Your task to perform on an android device: move an email to a new category in the gmail app Image 0: 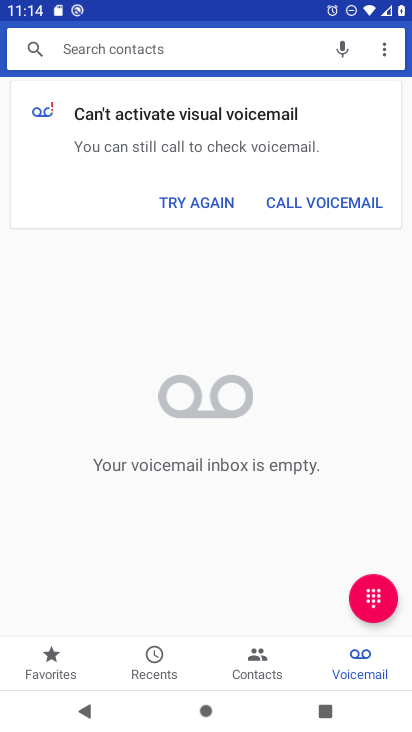
Step 0: press home button
Your task to perform on an android device: move an email to a new category in the gmail app Image 1: 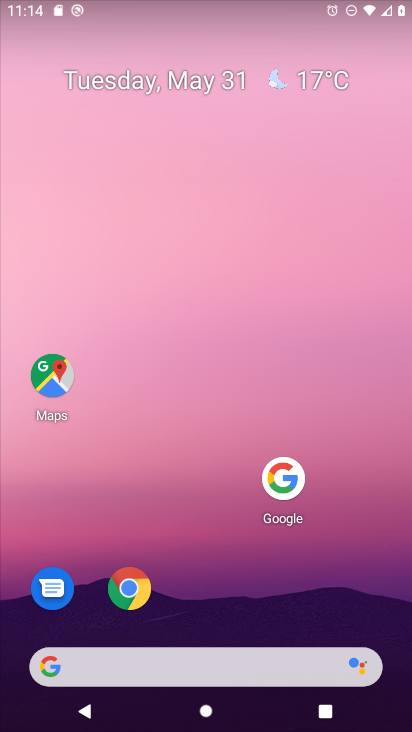
Step 1: drag from (194, 653) to (319, 149)
Your task to perform on an android device: move an email to a new category in the gmail app Image 2: 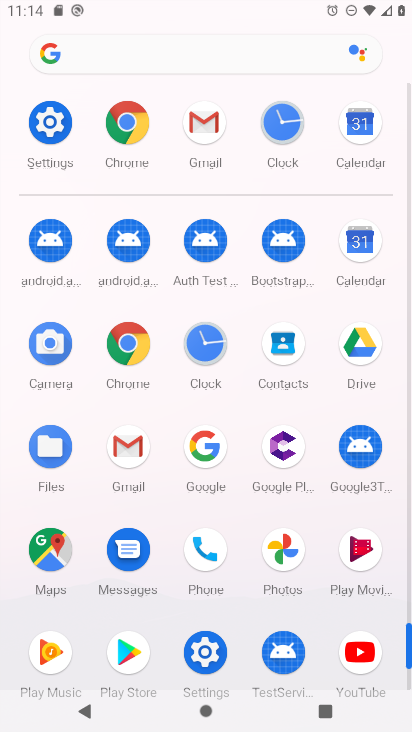
Step 2: click (201, 131)
Your task to perform on an android device: move an email to a new category in the gmail app Image 3: 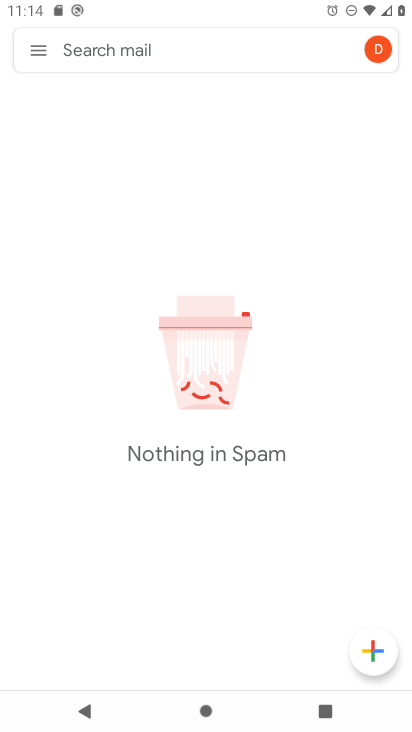
Step 3: click (37, 50)
Your task to perform on an android device: move an email to a new category in the gmail app Image 4: 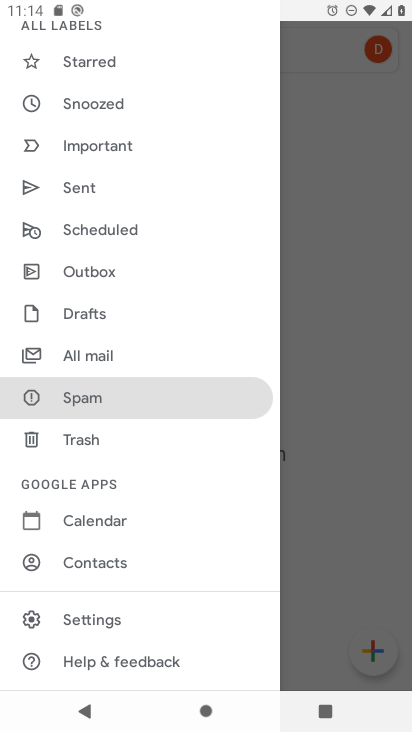
Step 4: click (106, 349)
Your task to perform on an android device: move an email to a new category in the gmail app Image 5: 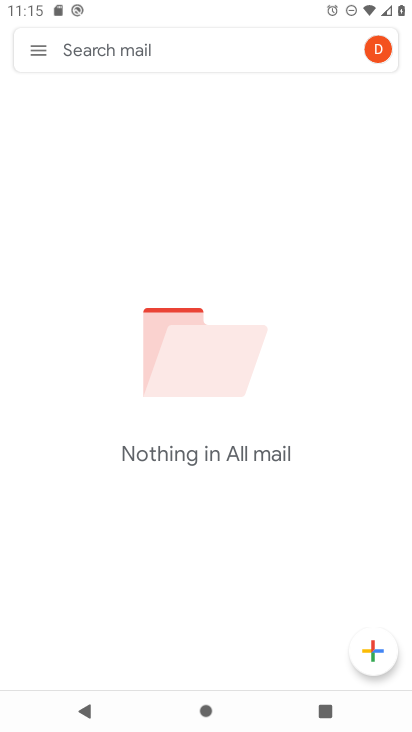
Step 5: task complete